Your task to perform on an android device: Open the calendar app, open the side menu, and click the "Day" option Image 0: 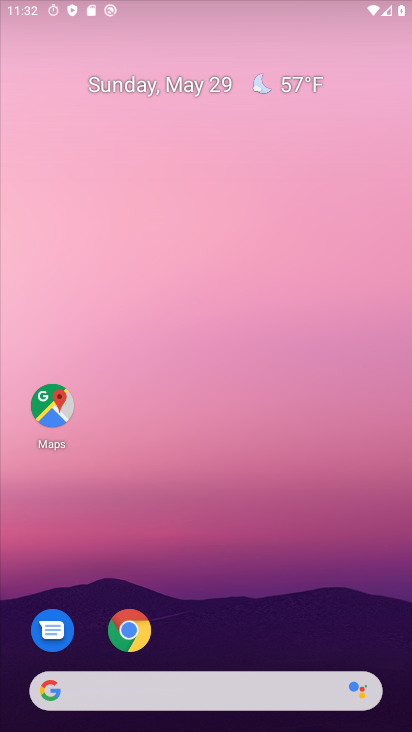
Step 0: press home button
Your task to perform on an android device: Open the calendar app, open the side menu, and click the "Day" option Image 1: 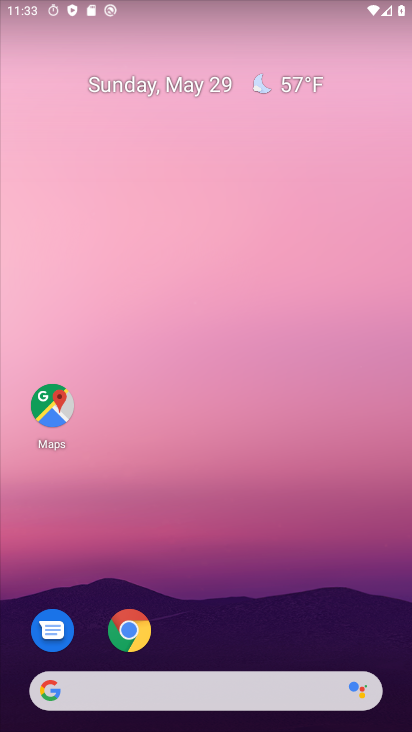
Step 1: drag from (230, 701) to (204, 204)
Your task to perform on an android device: Open the calendar app, open the side menu, and click the "Day" option Image 2: 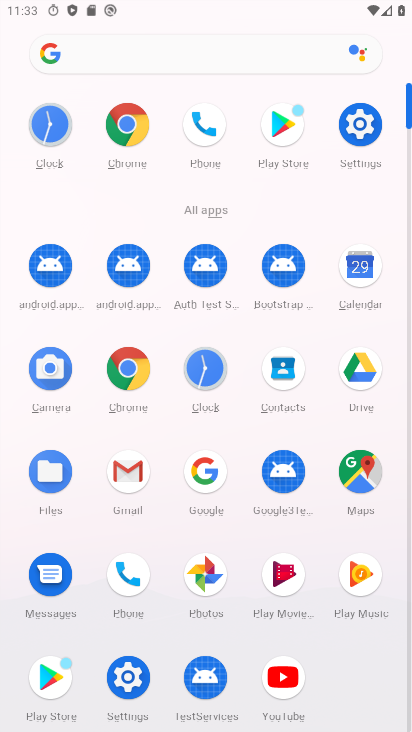
Step 2: click (340, 285)
Your task to perform on an android device: Open the calendar app, open the side menu, and click the "Day" option Image 3: 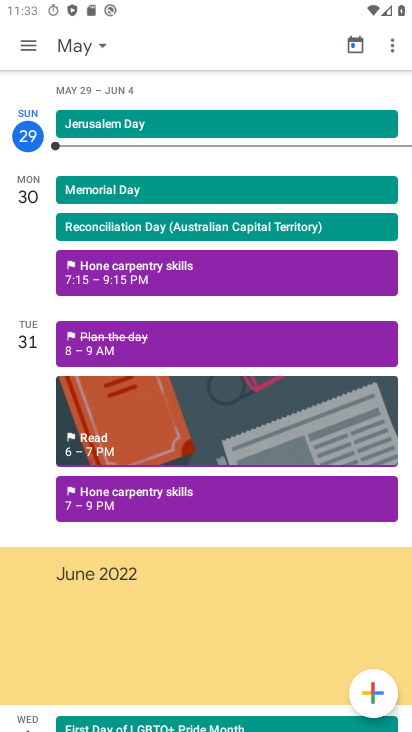
Step 3: click (17, 35)
Your task to perform on an android device: Open the calendar app, open the side menu, and click the "Day" option Image 4: 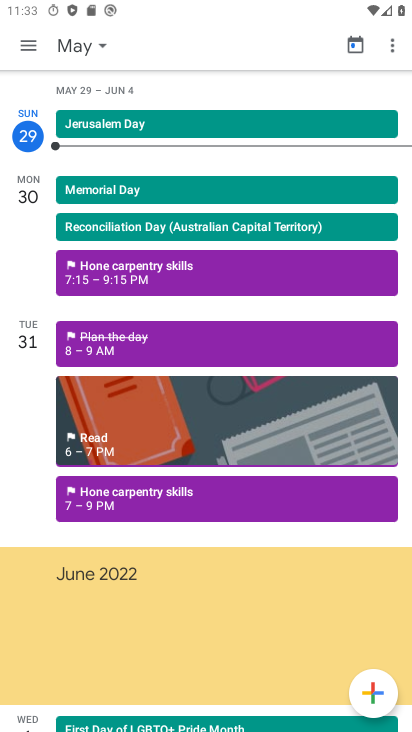
Step 4: click (26, 50)
Your task to perform on an android device: Open the calendar app, open the side menu, and click the "Day" option Image 5: 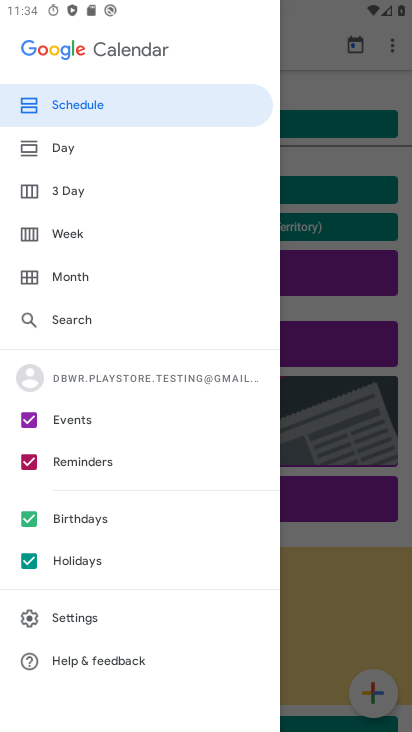
Step 5: click (73, 153)
Your task to perform on an android device: Open the calendar app, open the side menu, and click the "Day" option Image 6: 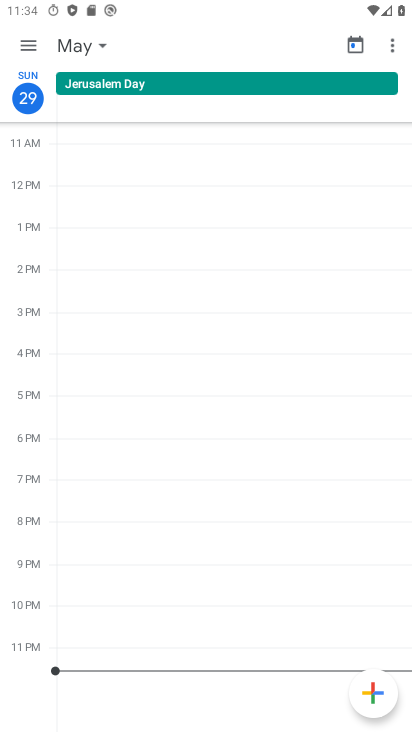
Step 6: task complete